Your task to perform on an android device: How much does a 2 bedroom apartment rent for in Los Angeles? Image 0: 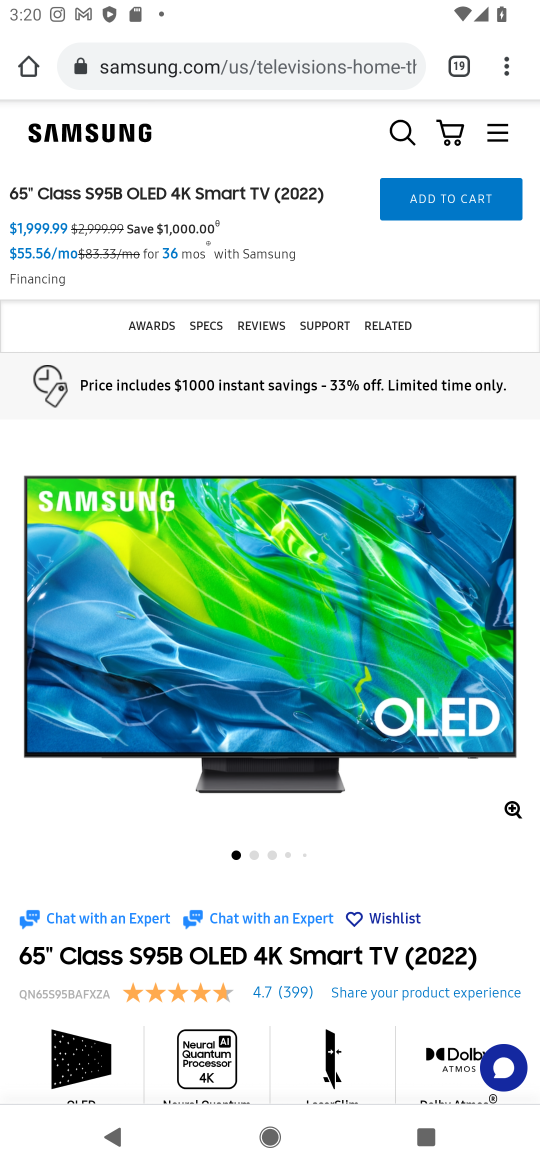
Step 0: press home button
Your task to perform on an android device: How much does a 2 bedroom apartment rent for in Los Angeles? Image 1: 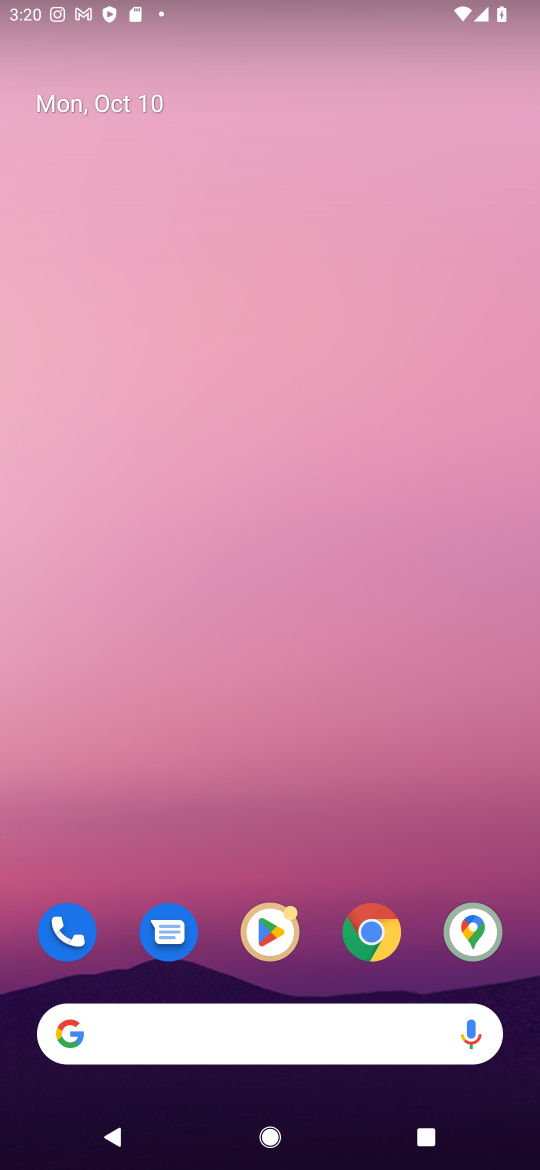
Step 1: click (255, 1026)
Your task to perform on an android device: How much does a 2 bedroom apartment rent for in Los Angeles? Image 2: 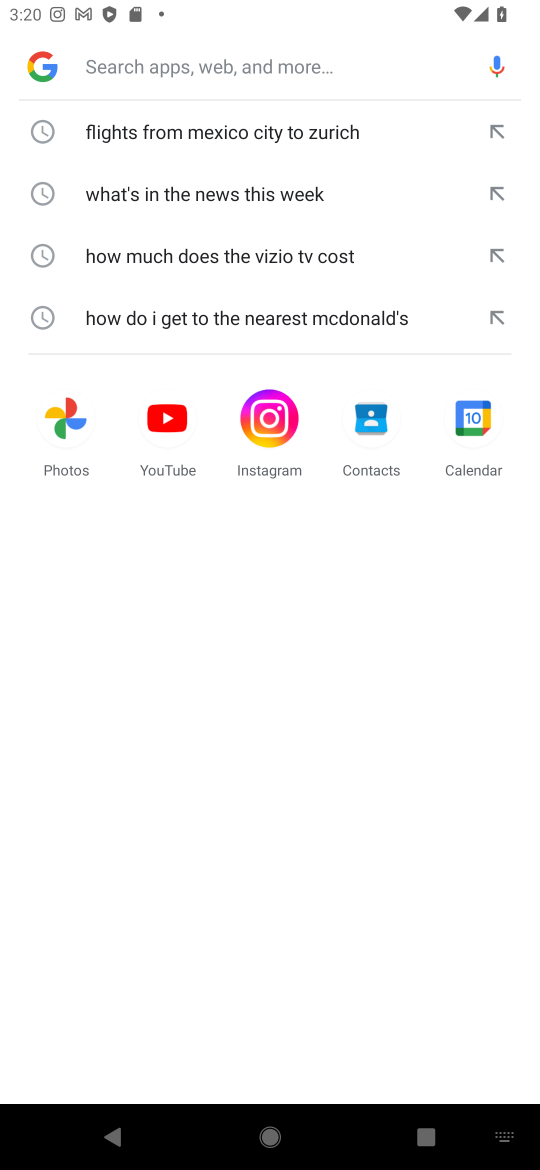
Step 2: type "2 bedroom apartment rent for in Los Angeles"
Your task to perform on an android device: How much does a 2 bedroom apartment rent for in Los Angeles? Image 3: 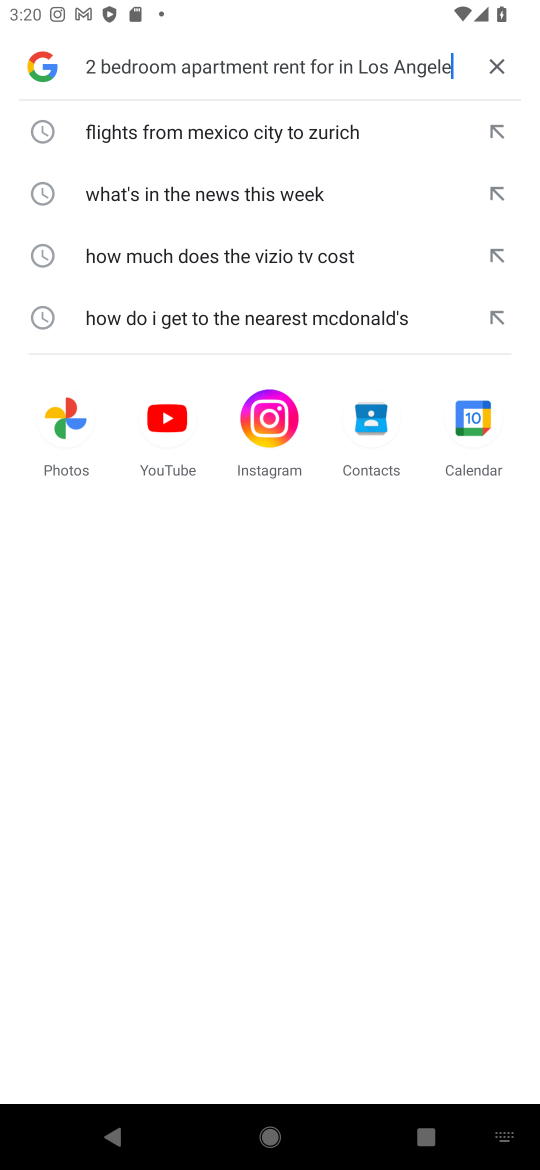
Step 3: press enter
Your task to perform on an android device: How much does a 2 bedroom apartment rent for in Los Angeles? Image 4: 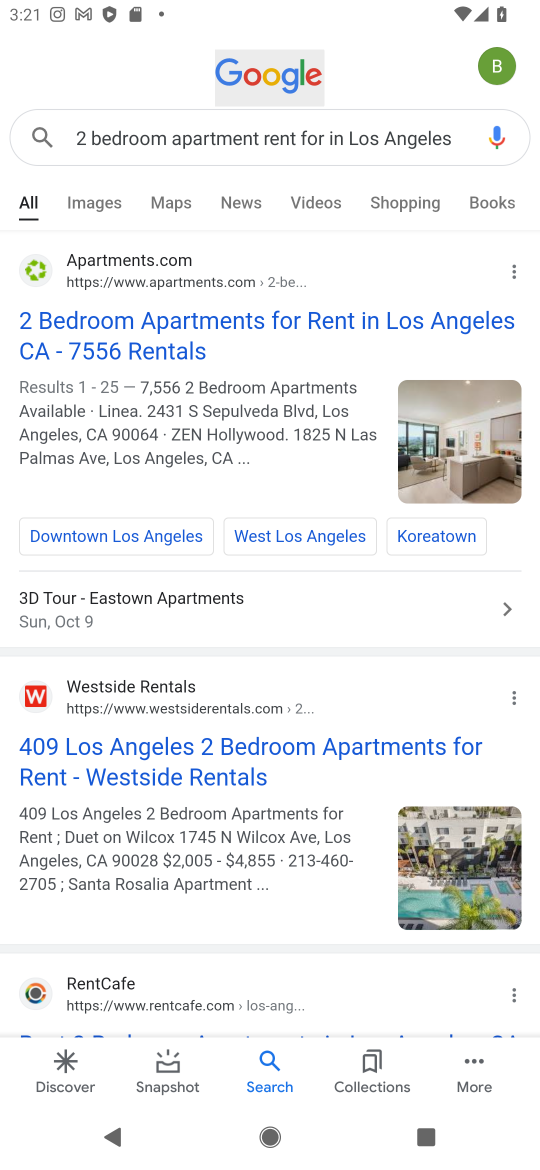
Step 4: click (253, 313)
Your task to perform on an android device: How much does a 2 bedroom apartment rent for in Los Angeles? Image 5: 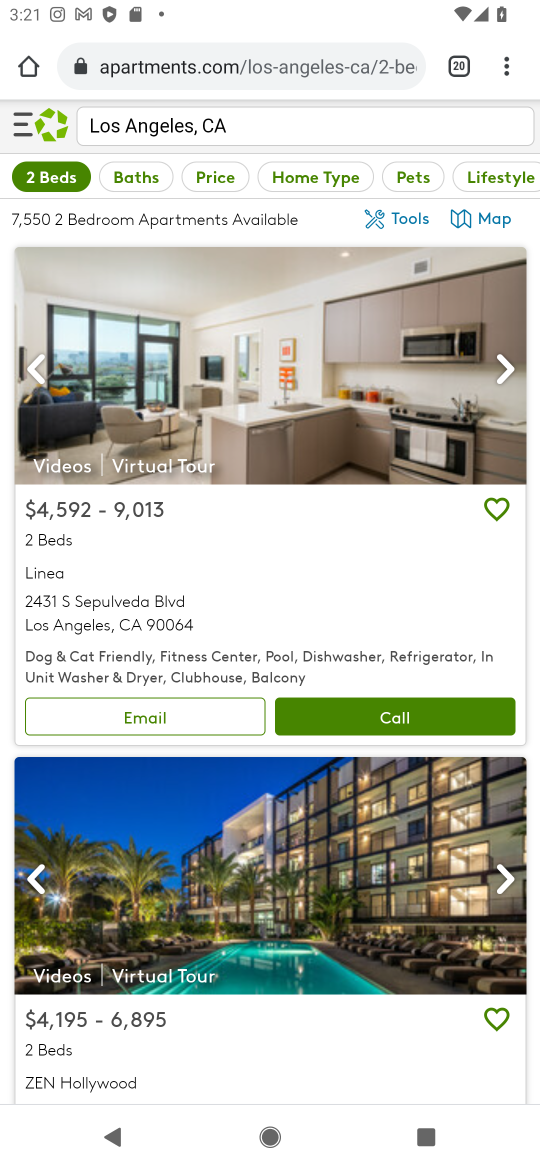
Step 5: task complete